Your task to perform on an android device: find snoozed emails in the gmail app Image 0: 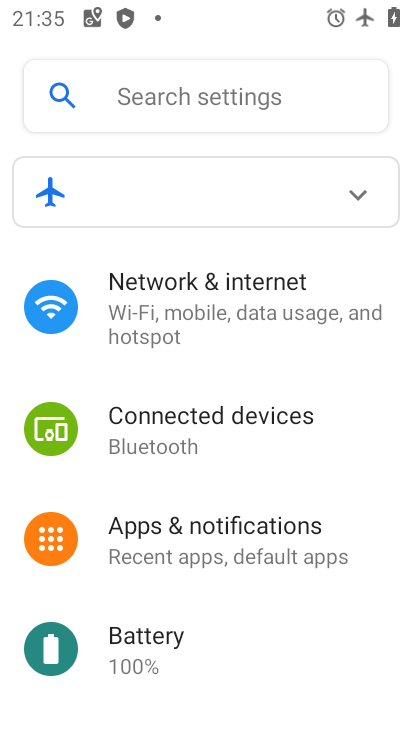
Step 0: press home button
Your task to perform on an android device: find snoozed emails in the gmail app Image 1: 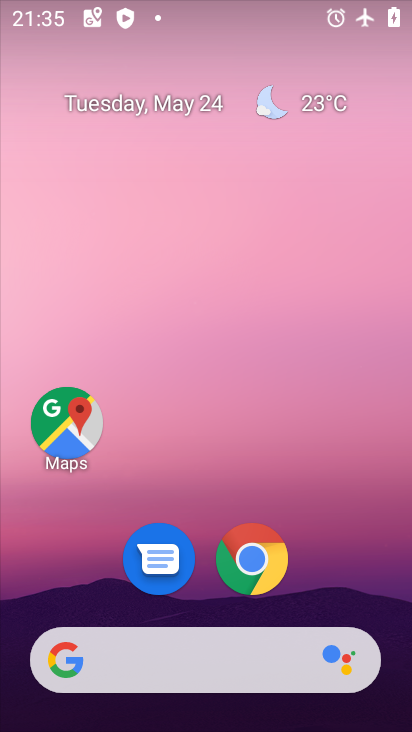
Step 1: drag from (338, 554) to (324, 137)
Your task to perform on an android device: find snoozed emails in the gmail app Image 2: 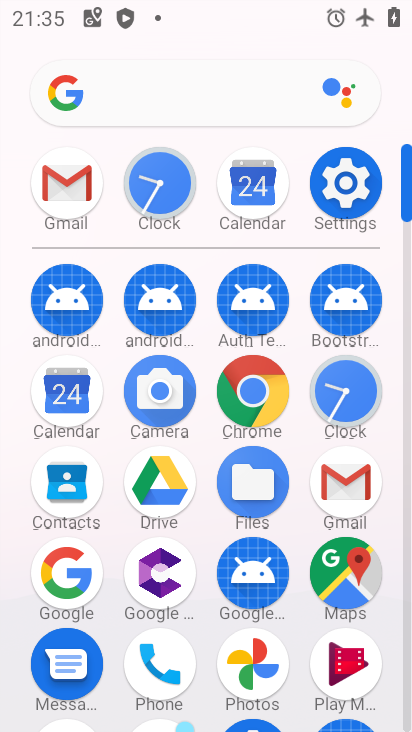
Step 2: click (50, 187)
Your task to perform on an android device: find snoozed emails in the gmail app Image 3: 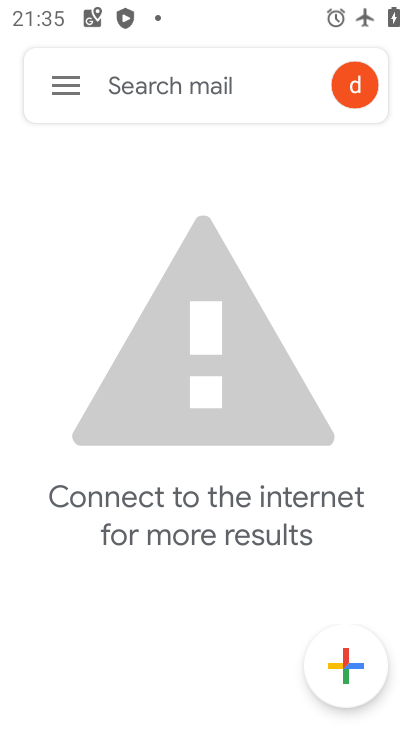
Step 3: click (75, 80)
Your task to perform on an android device: find snoozed emails in the gmail app Image 4: 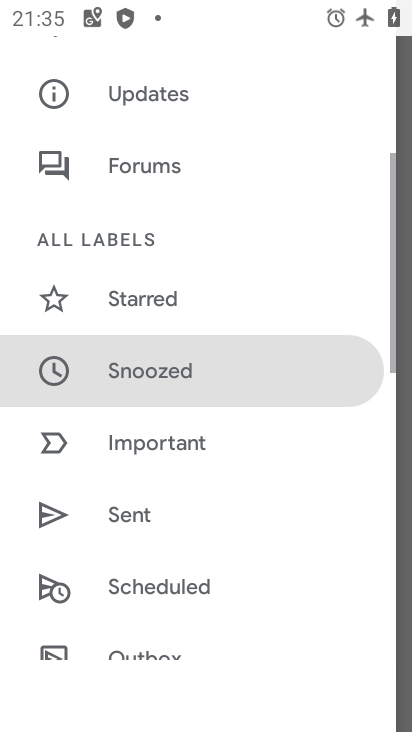
Step 4: click (139, 365)
Your task to perform on an android device: find snoozed emails in the gmail app Image 5: 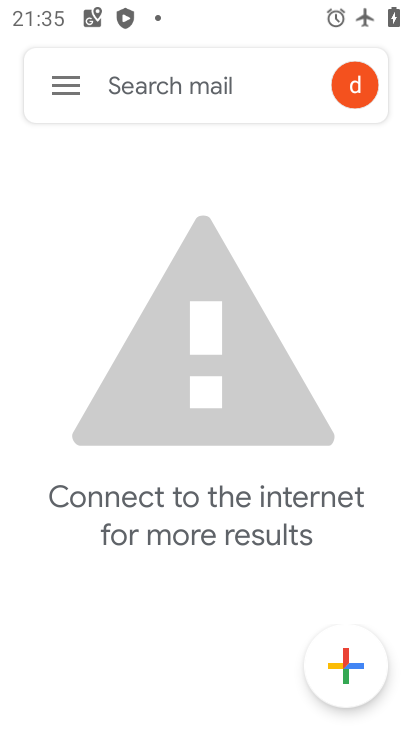
Step 5: task complete